Your task to perform on an android device: open chrome privacy settings Image 0: 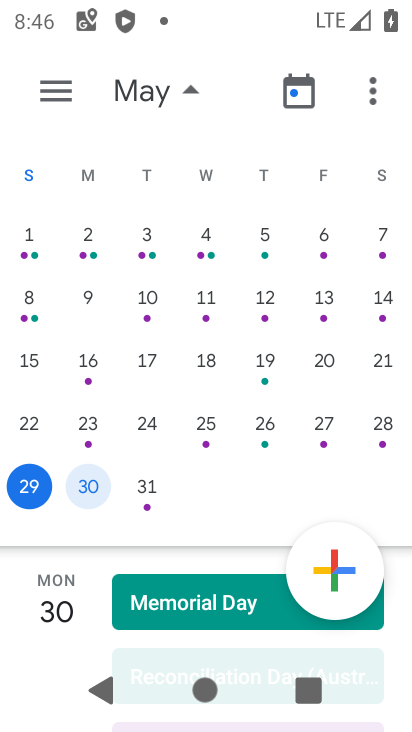
Step 0: press home button
Your task to perform on an android device: open chrome privacy settings Image 1: 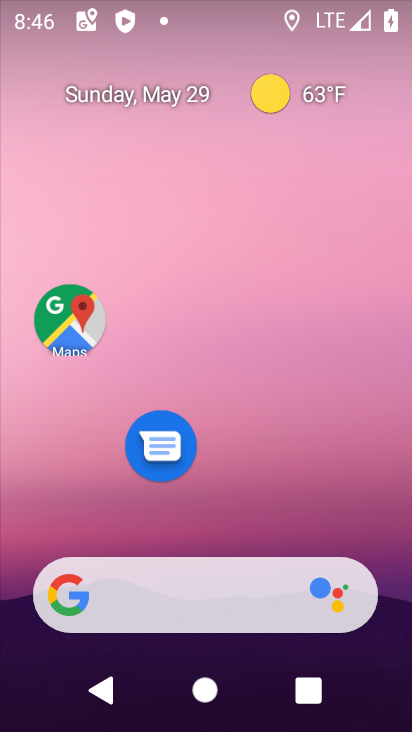
Step 1: drag from (253, 501) to (246, 231)
Your task to perform on an android device: open chrome privacy settings Image 2: 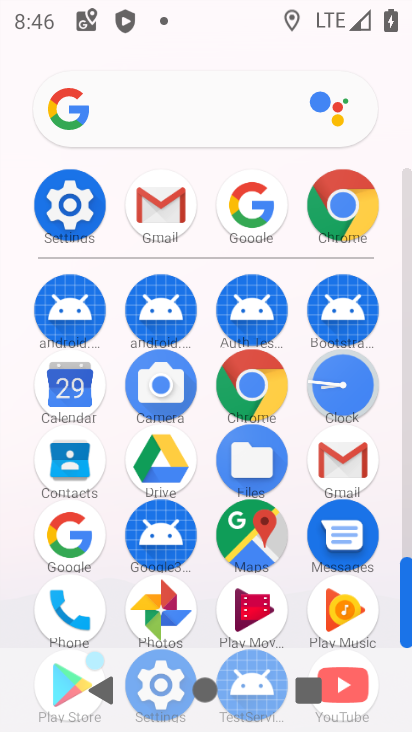
Step 2: click (317, 214)
Your task to perform on an android device: open chrome privacy settings Image 3: 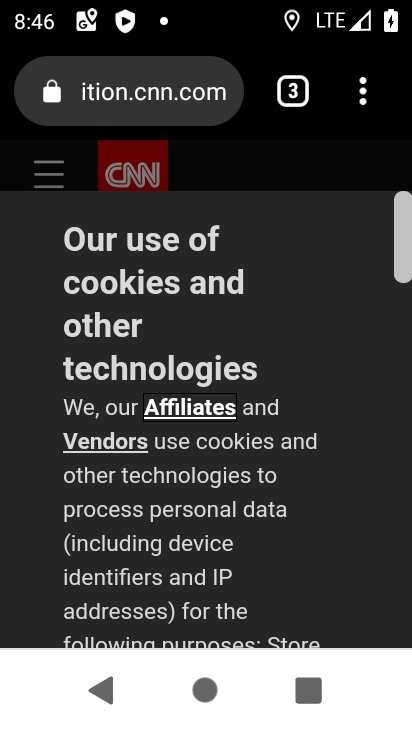
Step 3: click (356, 87)
Your task to perform on an android device: open chrome privacy settings Image 4: 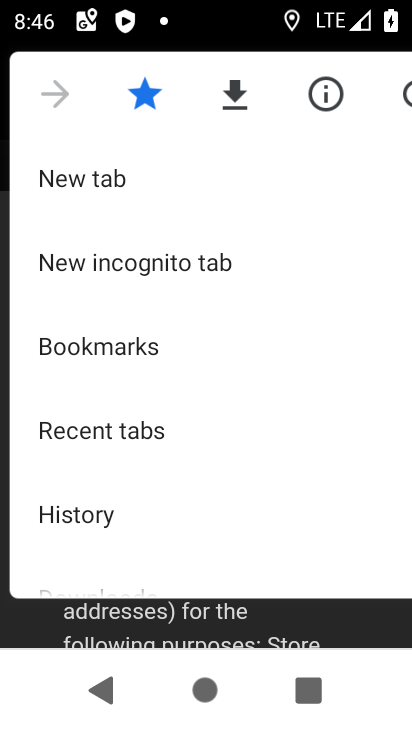
Step 4: drag from (166, 471) to (189, 260)
Your task to perform on an android device: open chrome privacy settings Image 5: 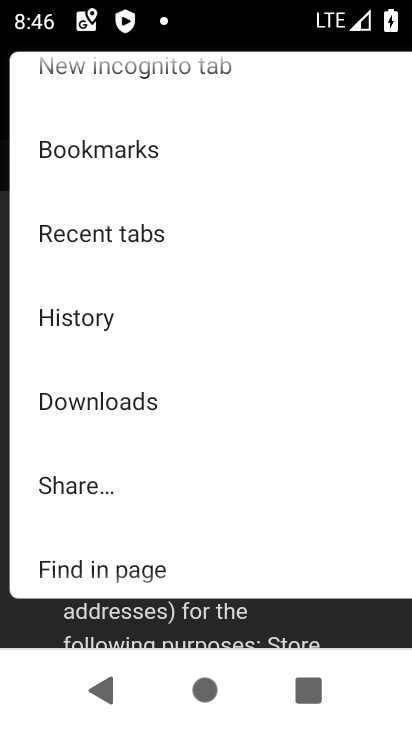
Step 5: drag from (169, 506) to (188, 289)
Your task to perform on an android device: open chrome privacy settings Image 6: 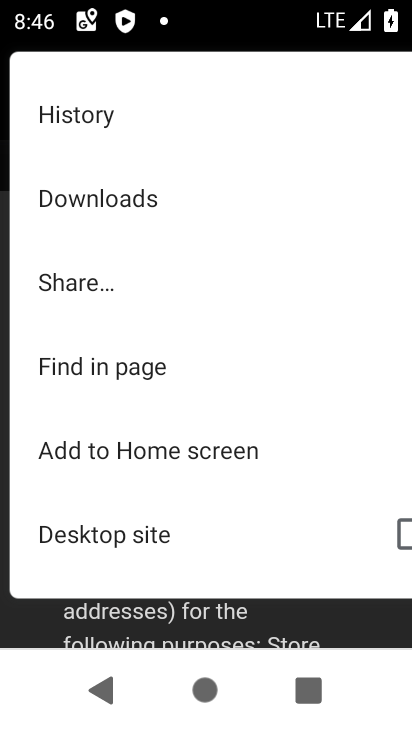
Step 6: drag from (233, 522) to (215, 301)
Your task to perform on an android device: open chrome privacy settings Image 7: 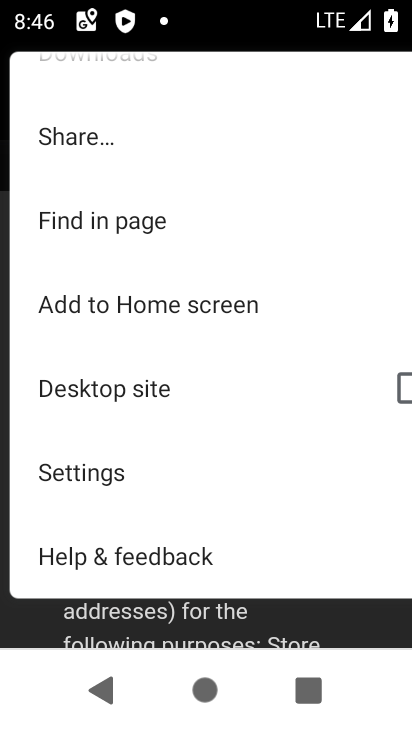
Step 7: click (136, 463)
Your task to perform on an android device: open chrome privacy settings Image 8: 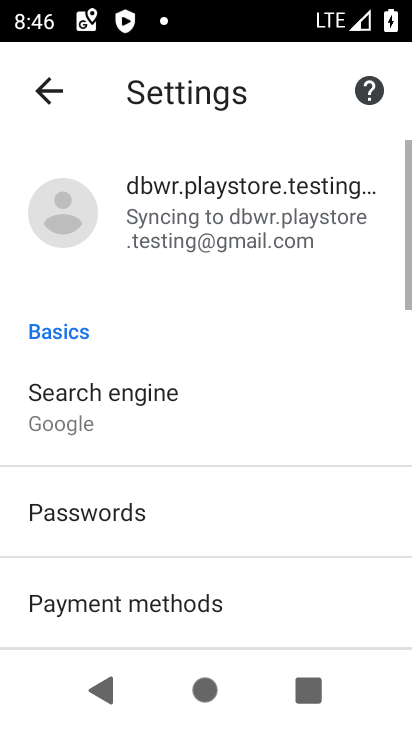
Step 8: drag from (192, 535) to (216, 281)
Your task to perform on an android device: open chrome privacy settings Image 9: 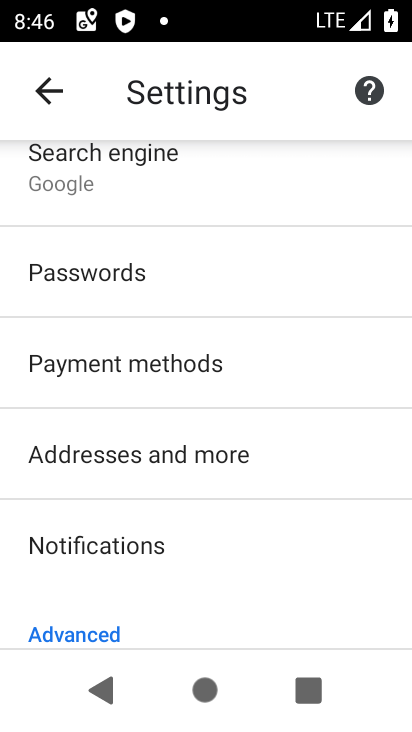
Step 9: drag from (253, 494) to (261, 369)
Your task to perform on an android device: open chrome privacy settings Image 10: 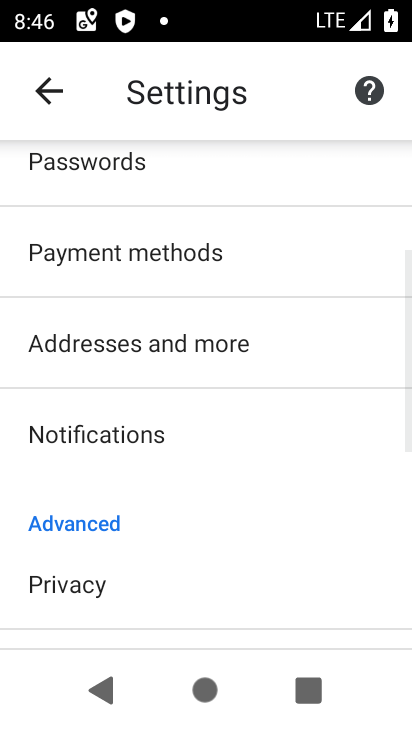
Step 10: click (99, 576)
Your task to perform on an android device: open chrome privacy settings Image 11: 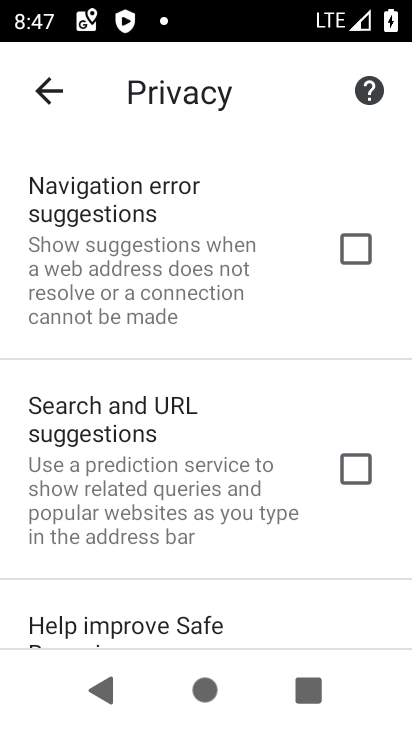
Step 11: task complete